Your task to perform on an android device: uninstall "Upside-Cash back on gas & food" Image 0: 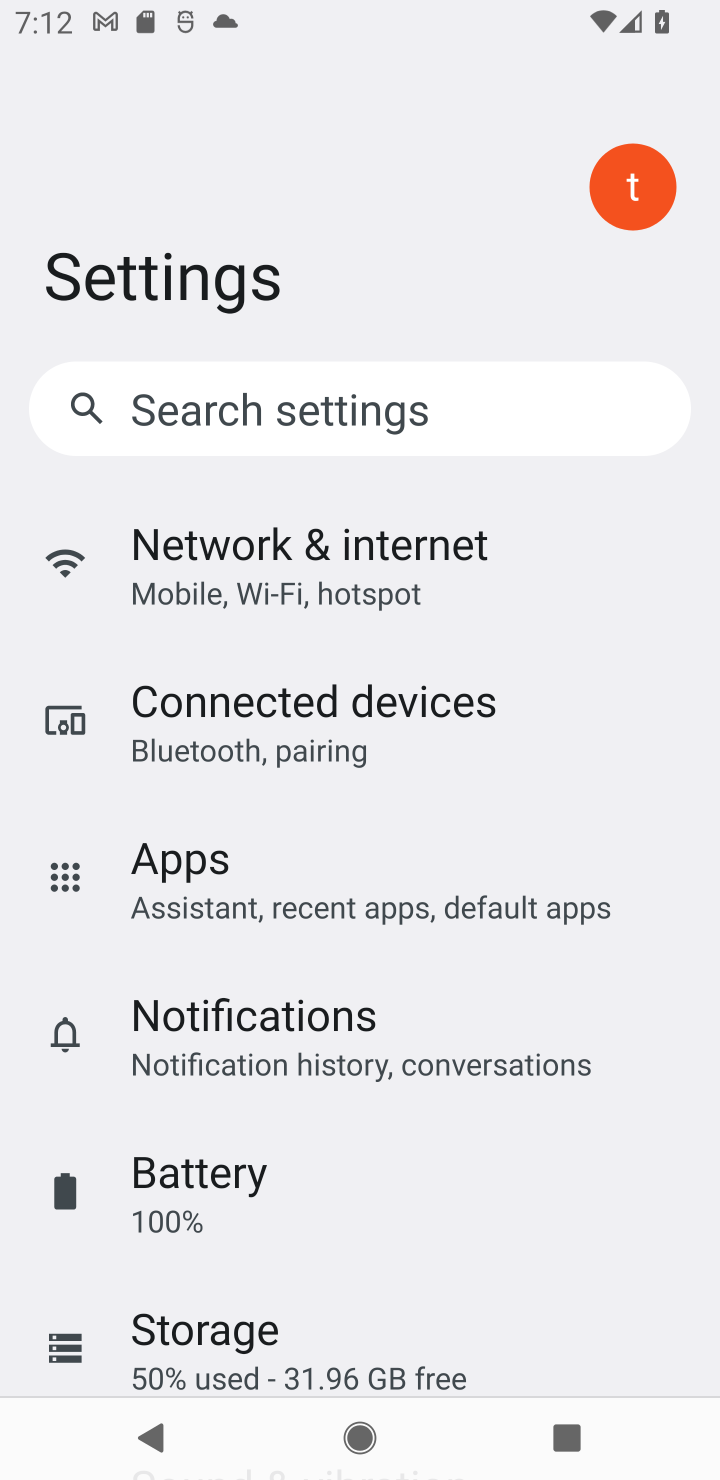
Step 0: press back button
Your task to perform on an android device: uninstall "Upside-Cash back on gas & food" Image 1: 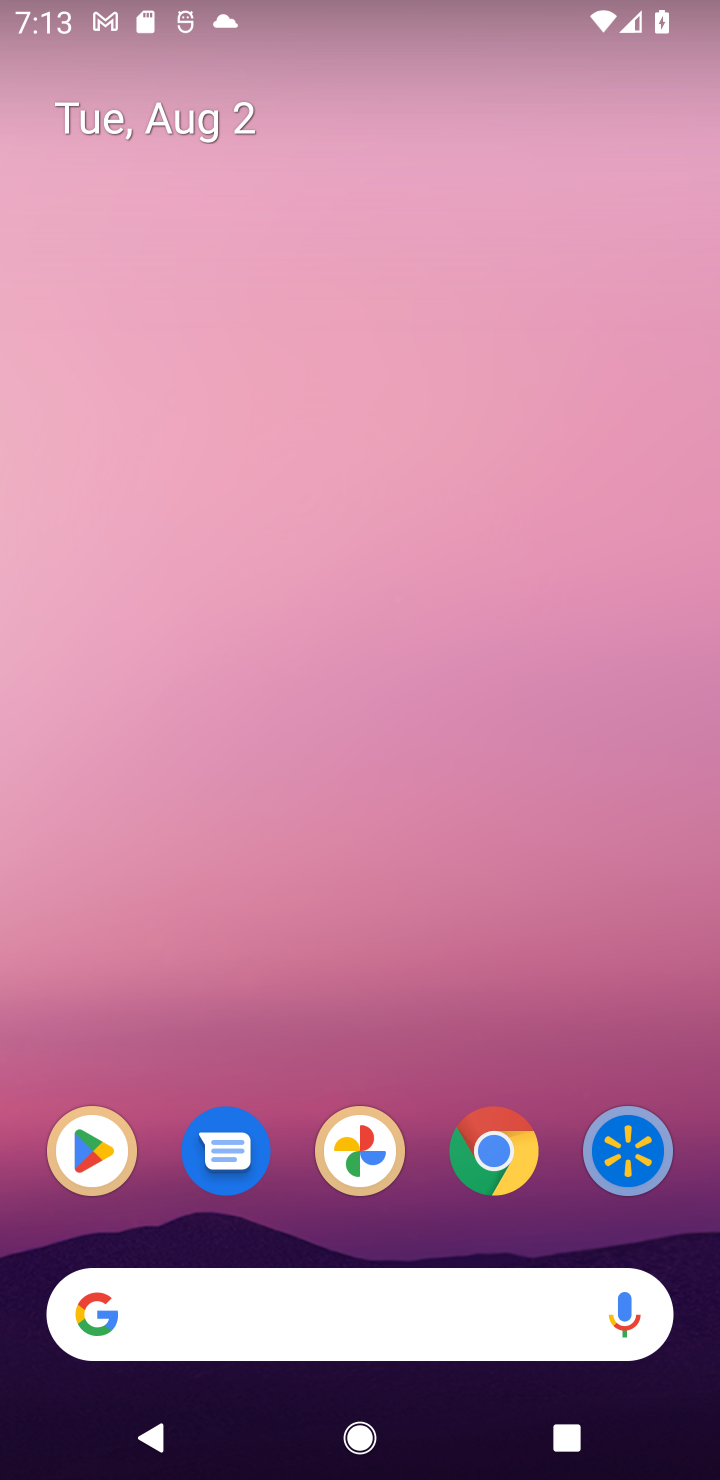
Step 1: click (83, 1117)
Your task to perform on an android device: uninstall "Upside-Cash back on gas & food" Image 2: 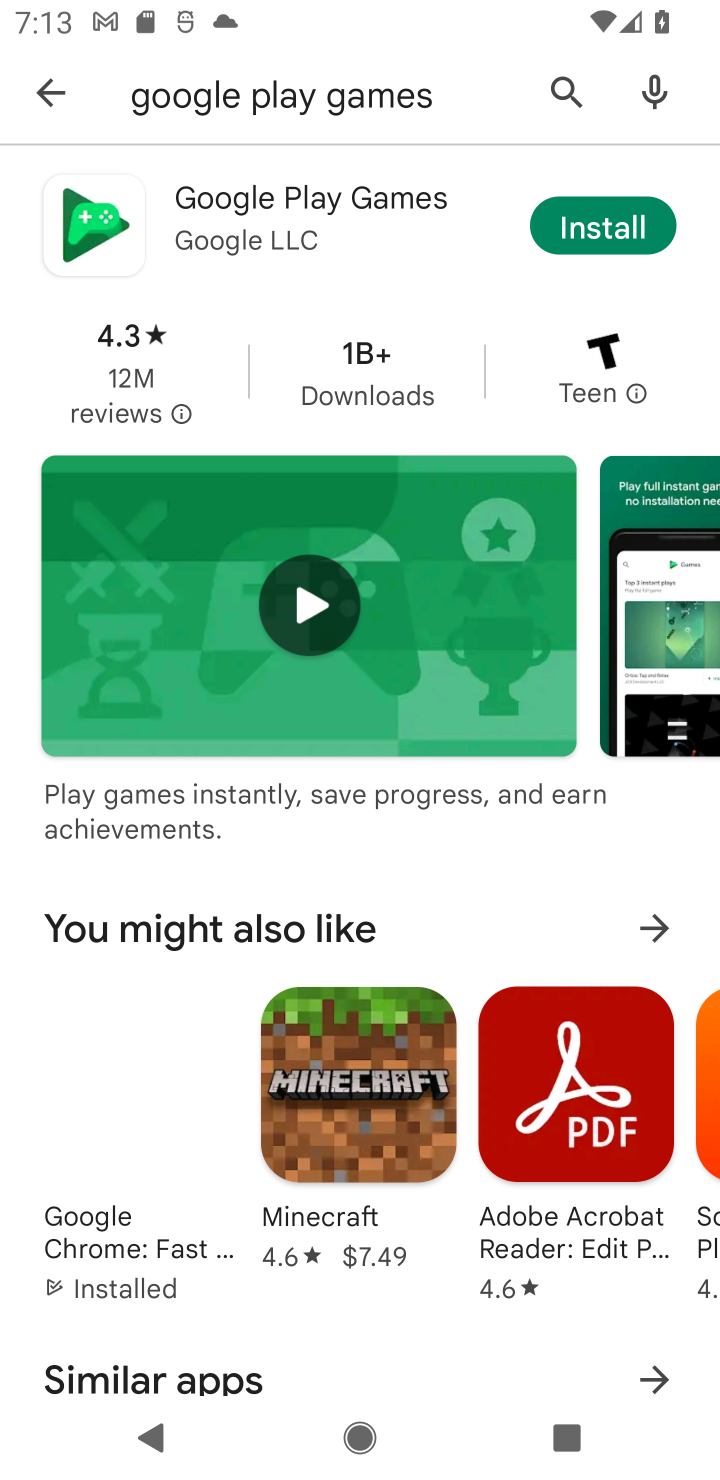
Step 2: click (562, 104)
Your task to perform on an android device: uninstall "Upside-Cash back on gas & food" Image 3: 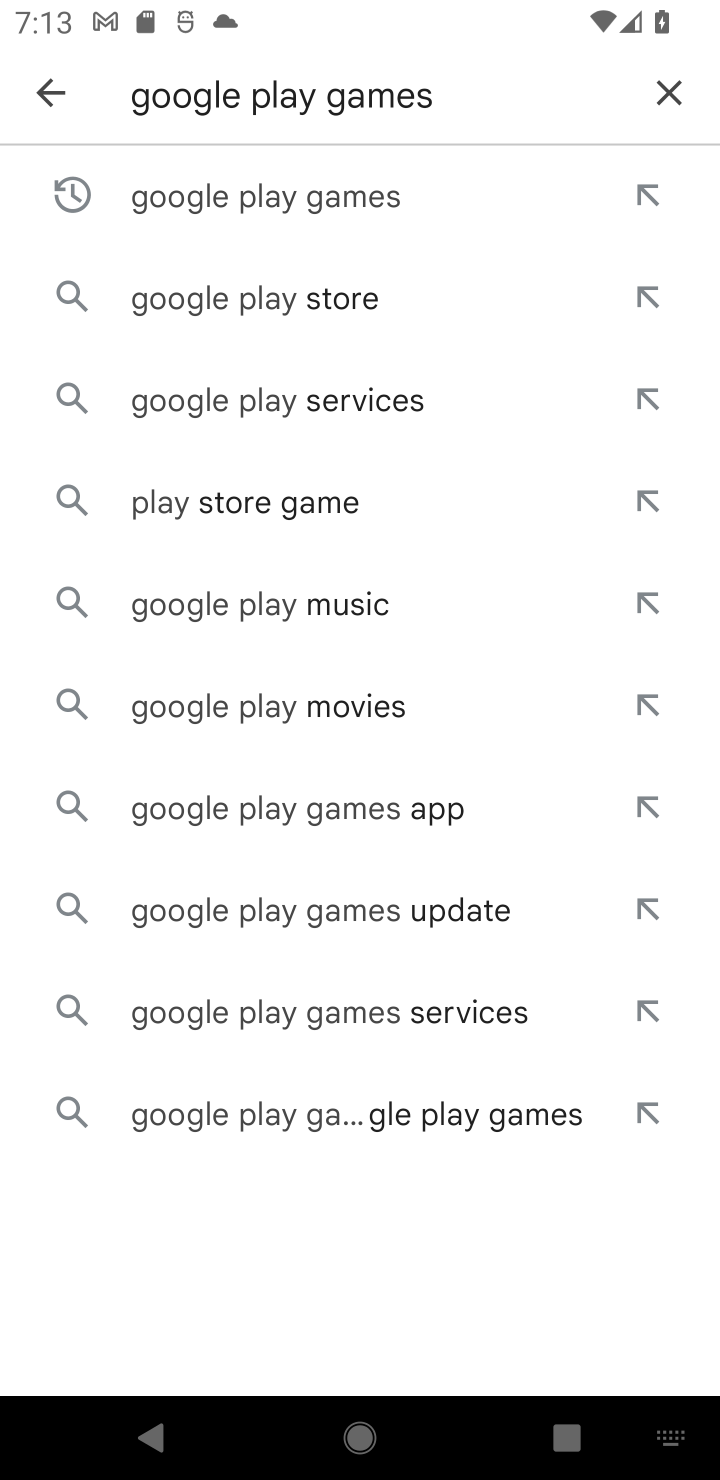
Step 3: click (669, 91)
Your task to perform on an android device: uninstall "Upside-Cash back on gas & food" Image 4: 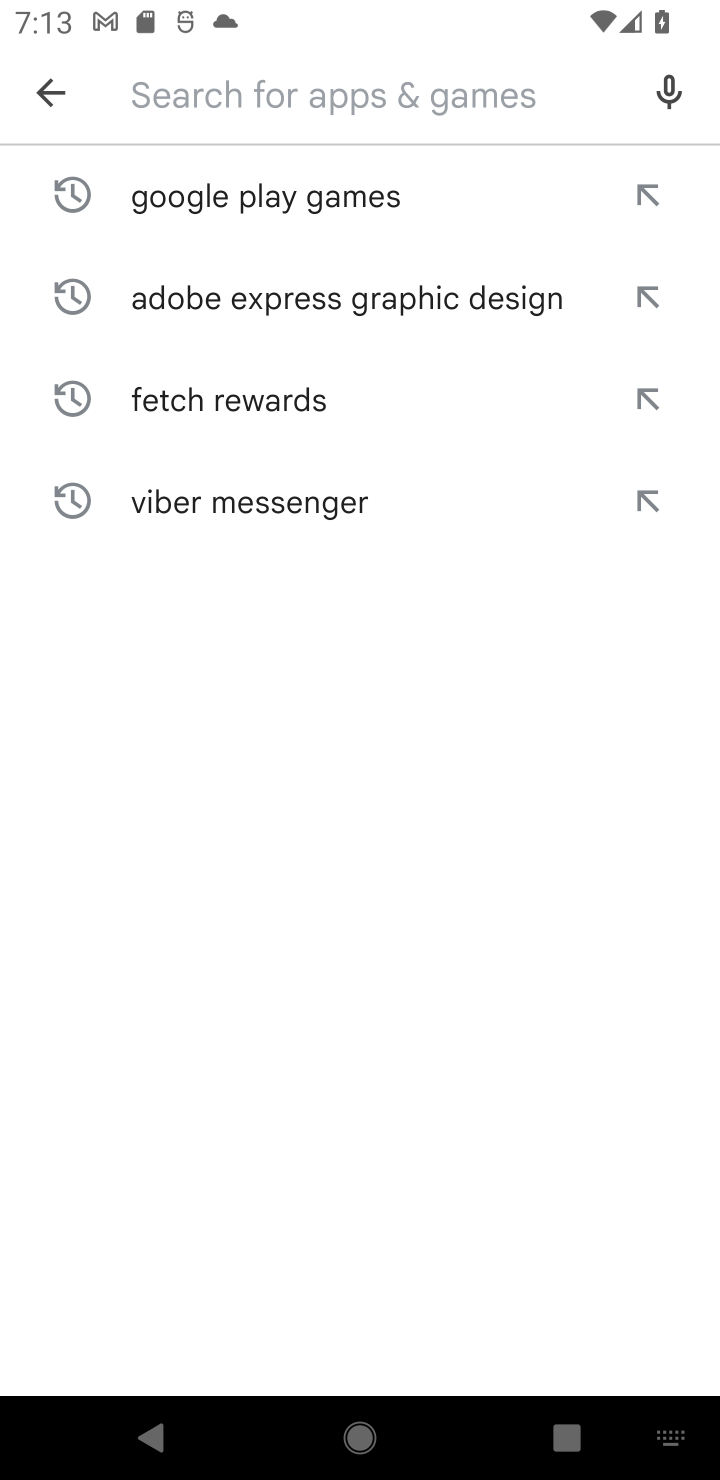
Step 4: type "Upside-Cash back on gas & food"
Your task to perform on an android device: uninstall "Upside-Cash back on gas & food" Image 5: 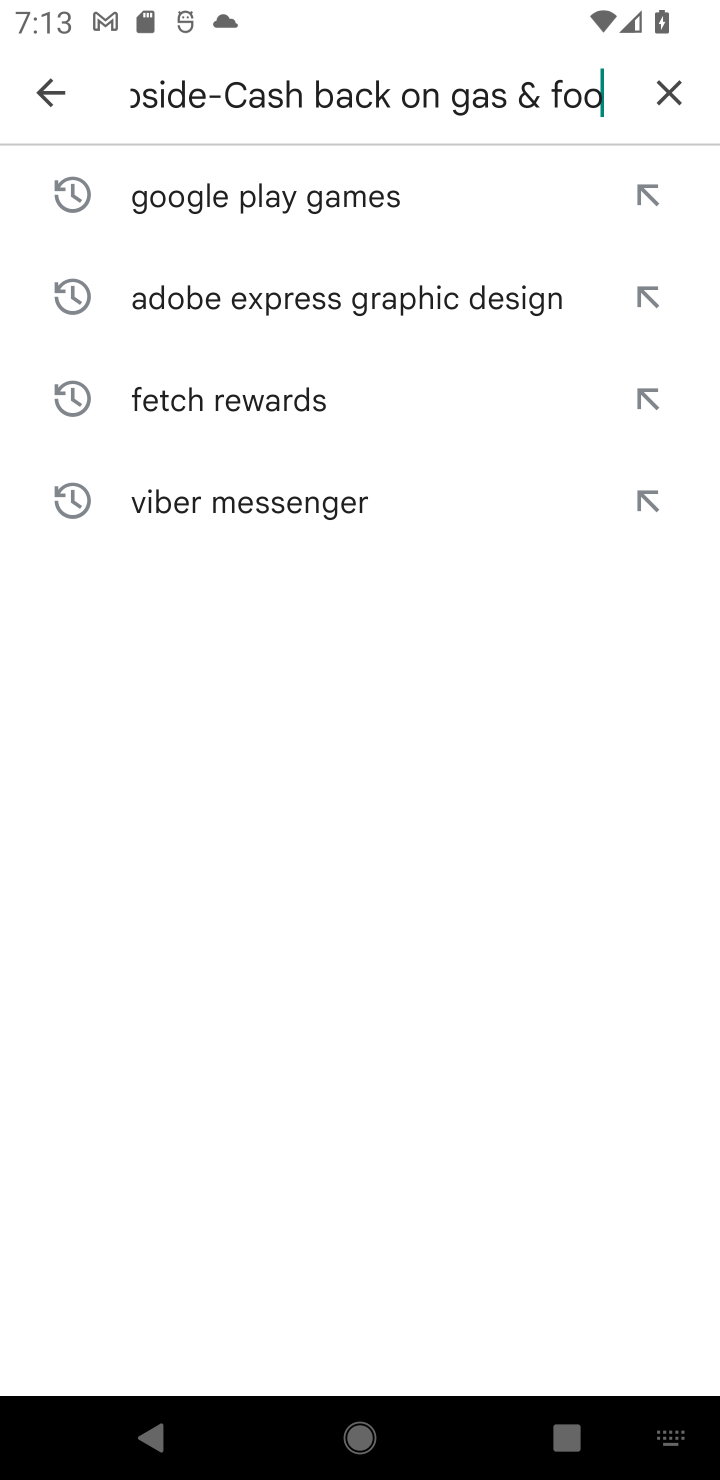
Step 5: type ""
Your task to perform on an android device: uninstall "Upside-Cash back on gas & food" Image 6: 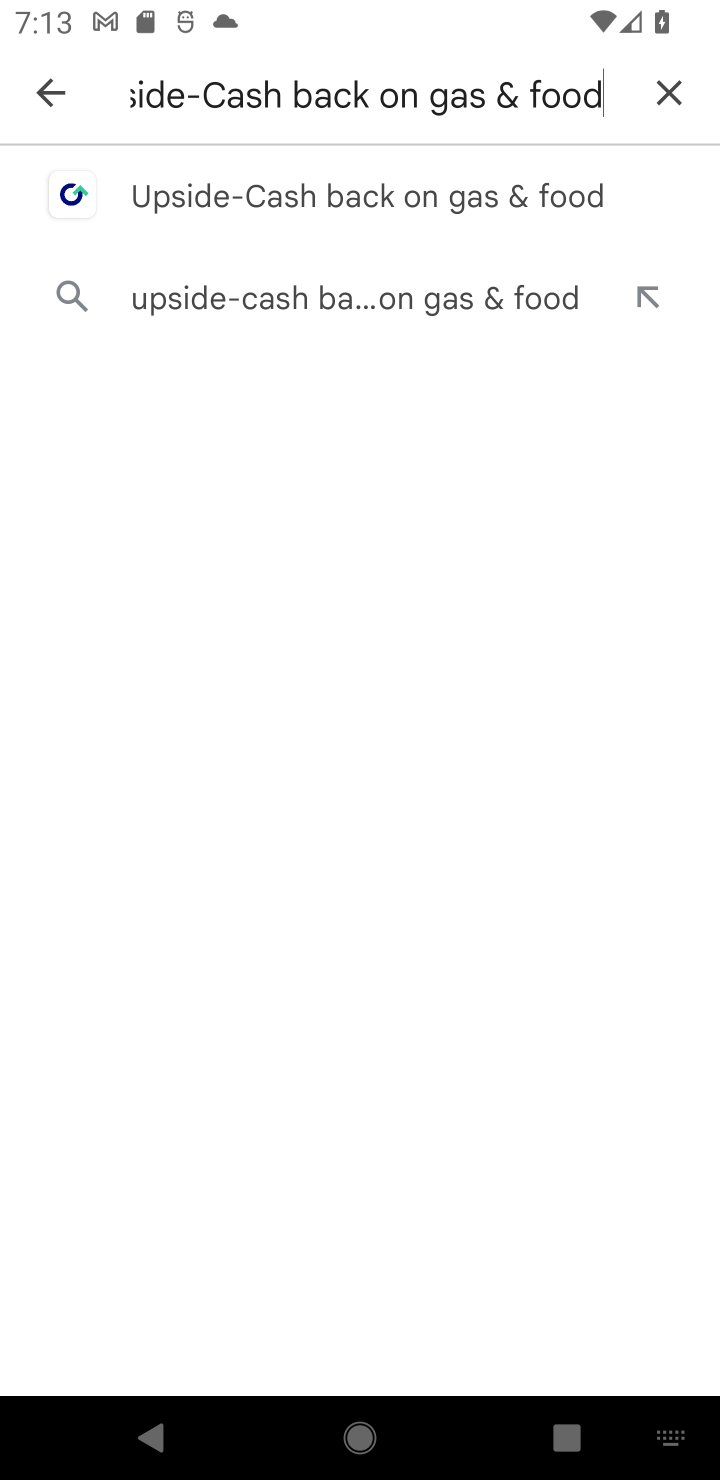
Step 6: click (295, 210)
Your task to perform on an android device: uninstall "Upside-Cash back on gas & food" Image 7: 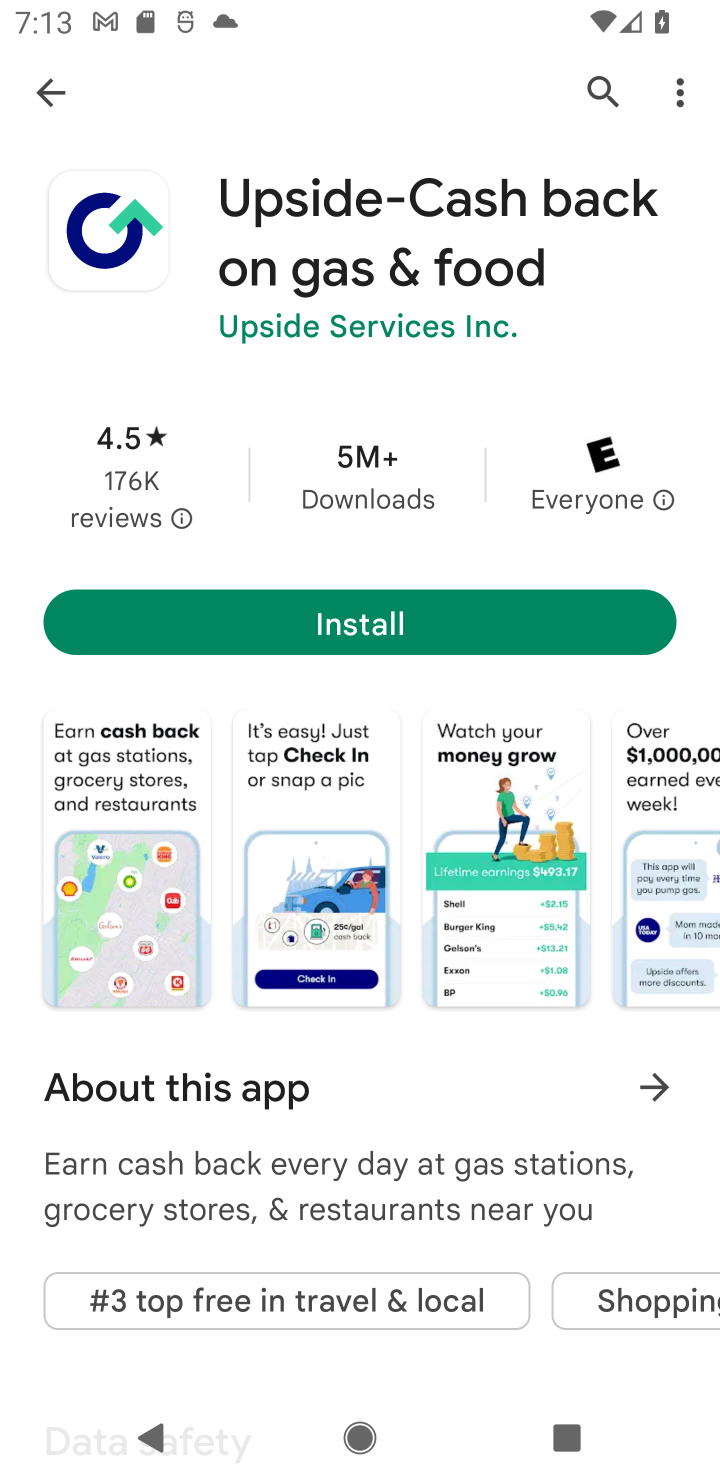
Step 7: task complete